Your task to perform on an android device: check out phone information Image 0: 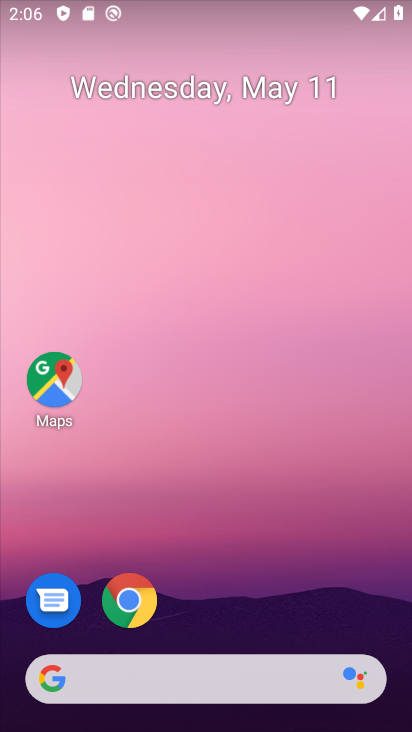
Step 0: drag from (207, 525) to (213, 0)
Your task to perform on an android device: check out phone information Image 1: 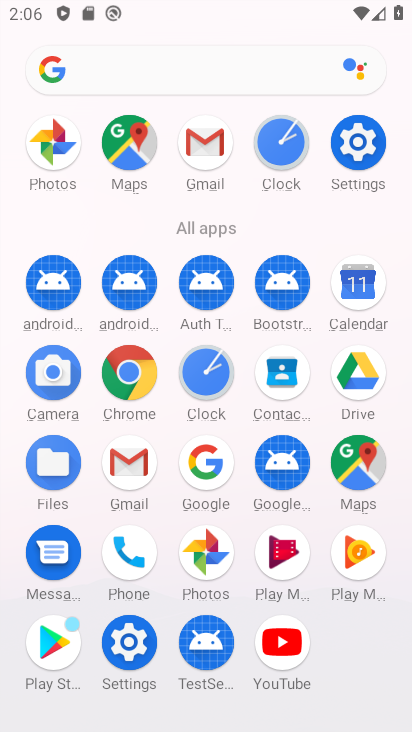
Step 1: click (359, 151)
Your task to perform on an android device: check out phone information Image 2: 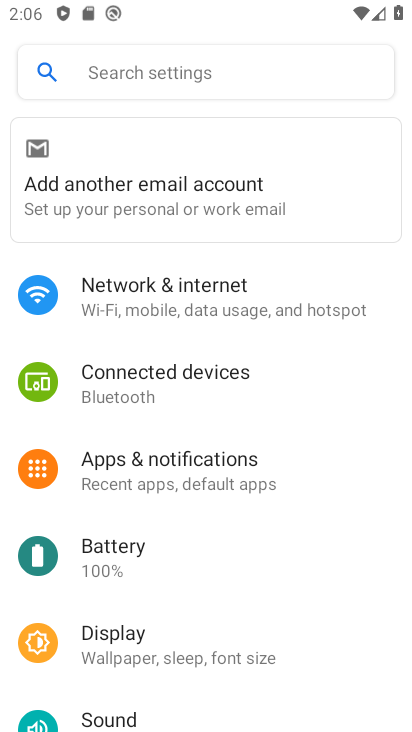
Step 2: drag from (194, 617) to (281, 3)
Your task to perform on an android device: check out phone information Image 3: 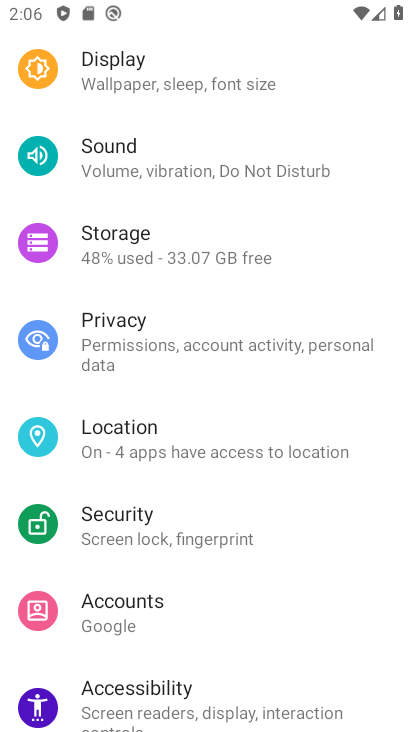
Step 3: drag from (187, 691) to (225, 233)
Your task to perform on an android device: check out phone information Image 4: 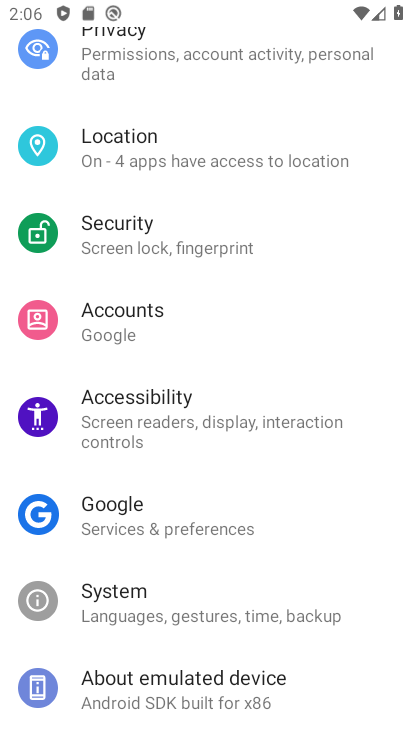
Step 4: click (171, 681)
Your task to perform on an android device: check out phone information Image 5: 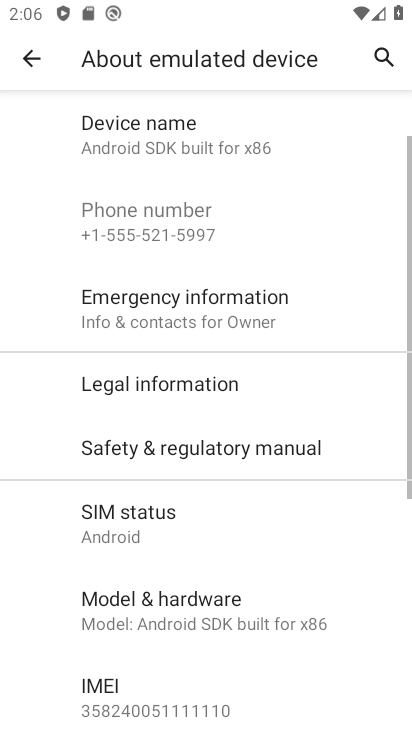
Step 5: task complete